Your task to perform on an android device: move a message to another label in the gmail app Image 0: 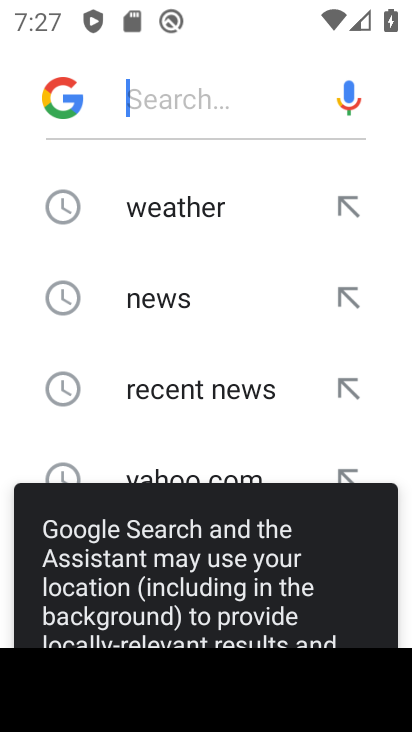
Step 0: press home button
Your task to perform on an android device: move a message to another label in the gmail app Image 1: 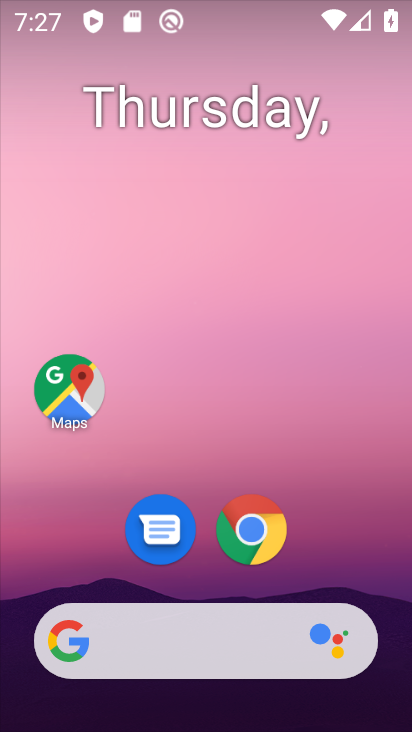
Step 1: drag from (382, 579) to (385, 195)
Your task to perform on an android device: move a message to another label in the gmail app Image 2: 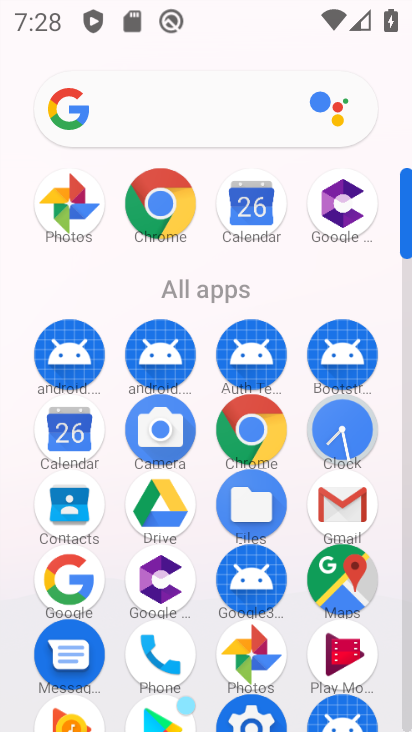
Step 2: click (352, 513)
Your task to perform on an android device: move a message to another label in the gmail app Image 3: 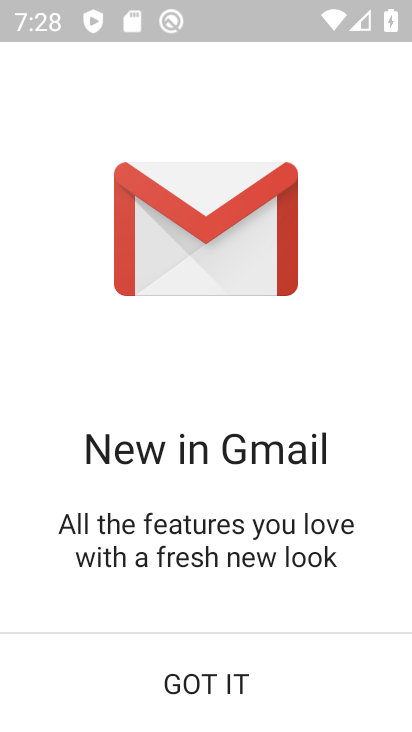
Step 3: click (257, 671)
Your task to perform on an android device: move a message to another label in the gmail app Image 4: 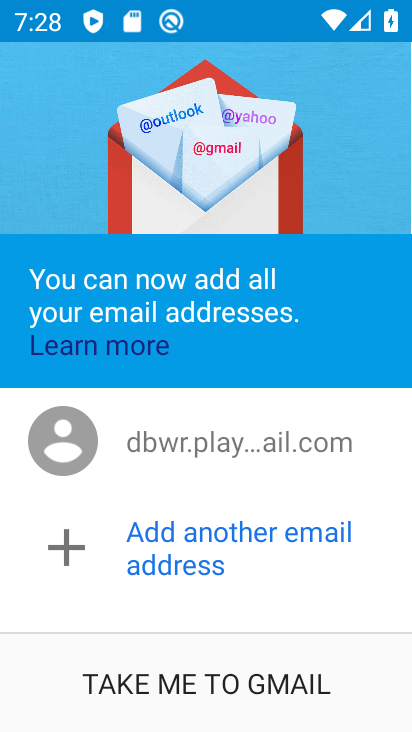
Step 4: click (245, 687)
Your task to perform on an android device: move a message to another label in the gmail app Image 5: 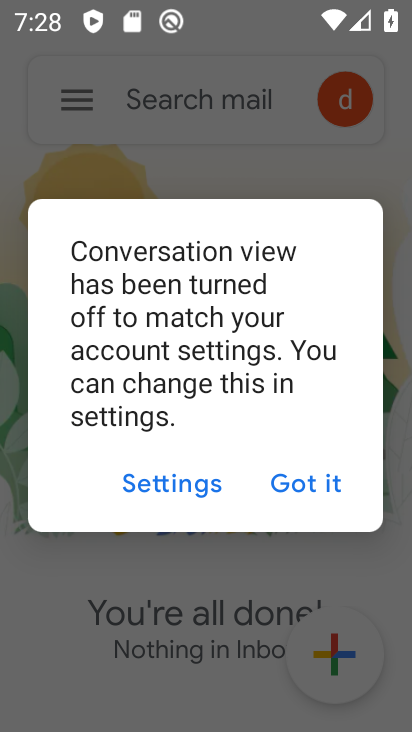
Step 5: click (324, 488)
Your task to perform on an android device: move a message to another label in the gmail app Image 6: 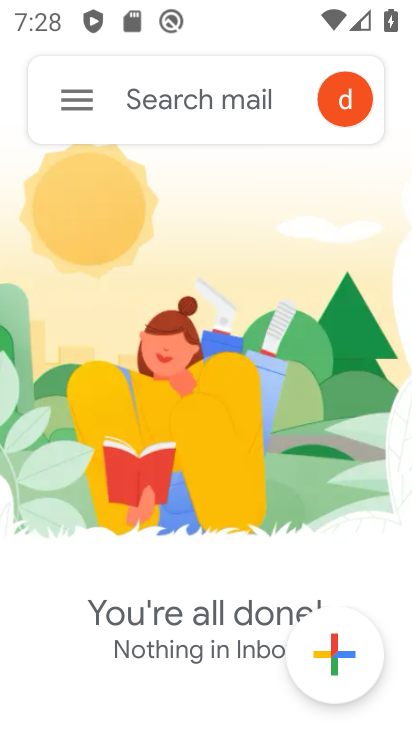
Step 6: task complete